Your task to perform on an android device: turn on sleep mode Image 0: 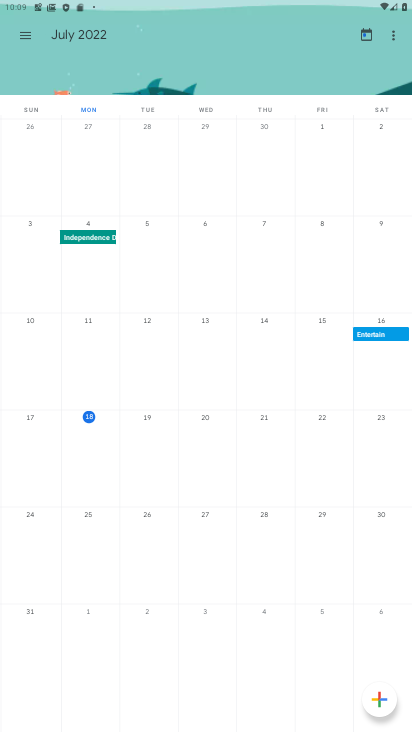
Step 0: press home button
Your task to perform on an android device: turn on sleep mode Image 1: 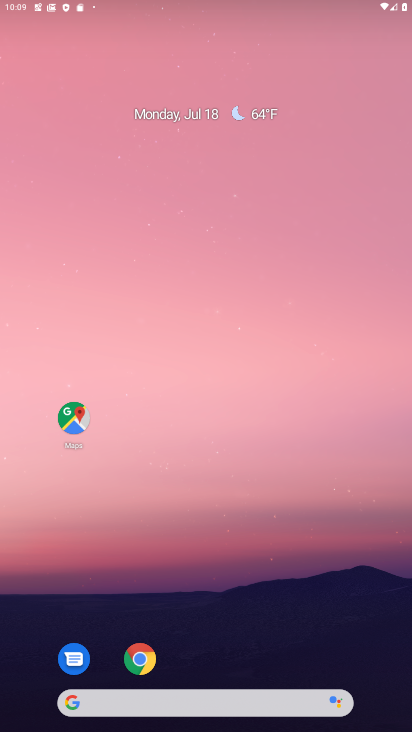
Step 1: drag from (220, 689) to (207, 163)
Your task to perform on an android device: turn on sleep mode Image 2: 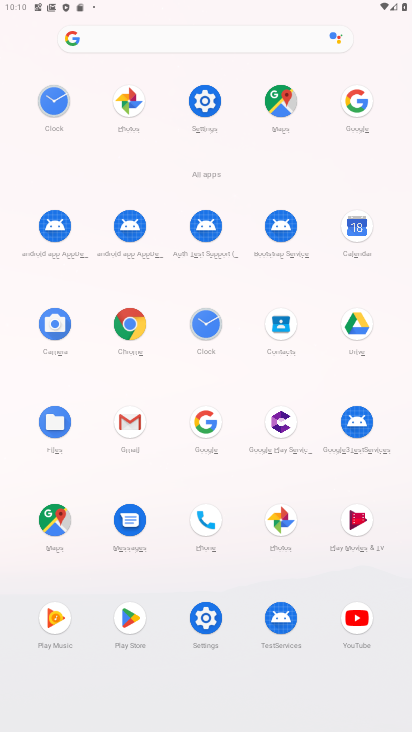
Step 2: click (209, 93)
Your task to perform on an android device: turn on sleep mode Image 3: 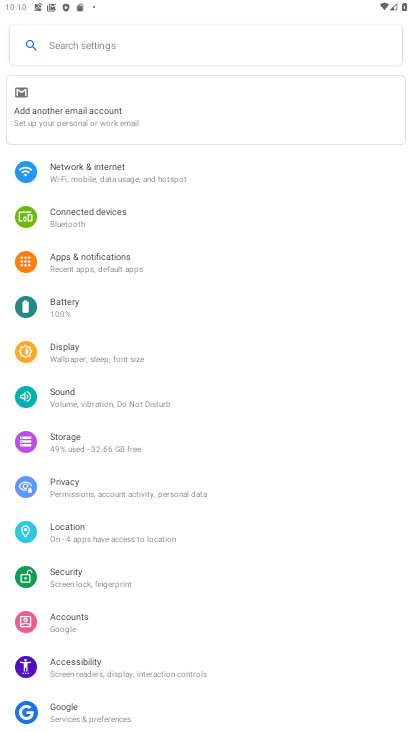
Step 3: click (66, 351)
Your task to perform on an android device: turn on sleep mode Image 4: 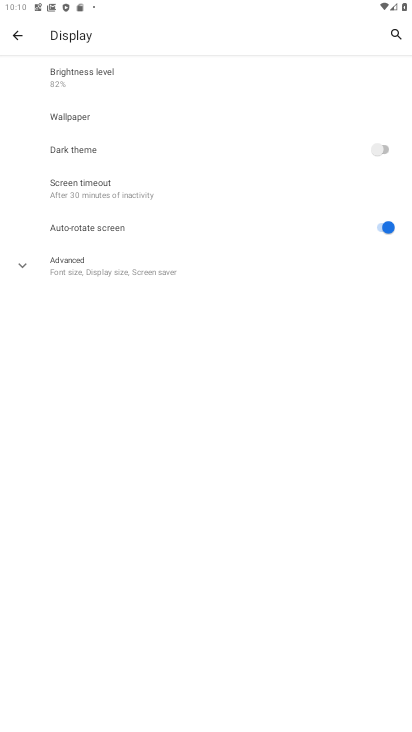
Step 4: click (95, 182)
Your task to perform on an android device: turn on sleep mode Image 5: 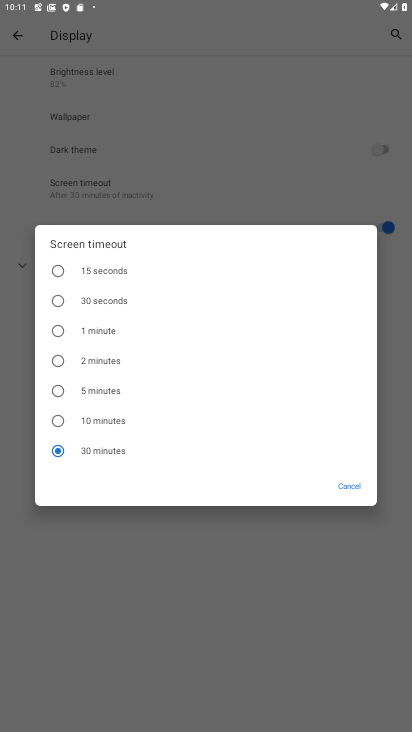
Step 5: task complete